Your task to perform on an android device: delete the emails in spam in the gmail app Image 0: 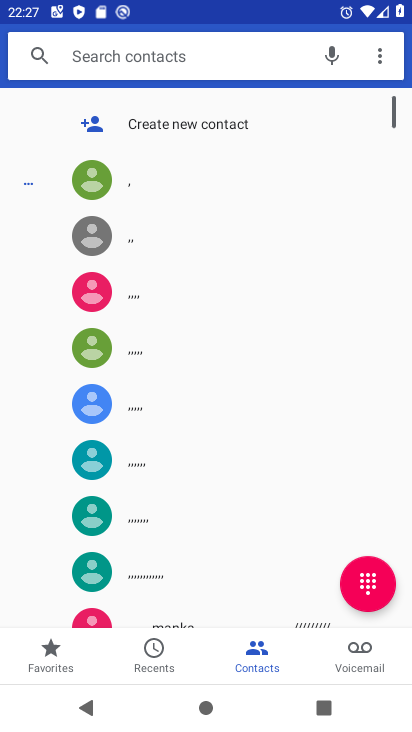
Step 0: press home button
Your task to perform on an android device: delete the emails in spam in the gmail app Image 1: 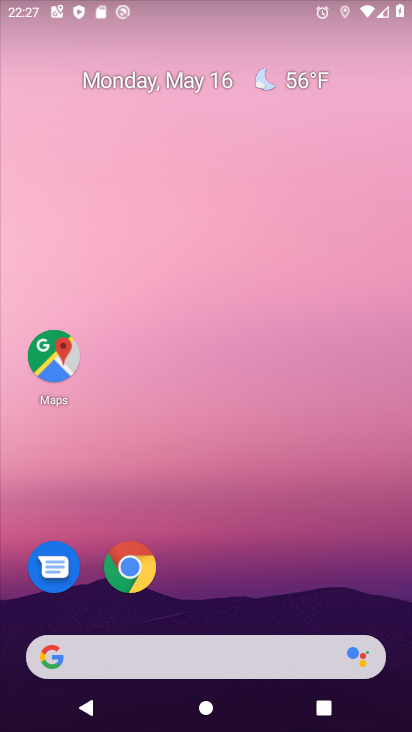
Step 1: drag from (259, 577) to (272, 195)
Your task to perform on an android device: delete the emails in spam in the gmail app Image 2: 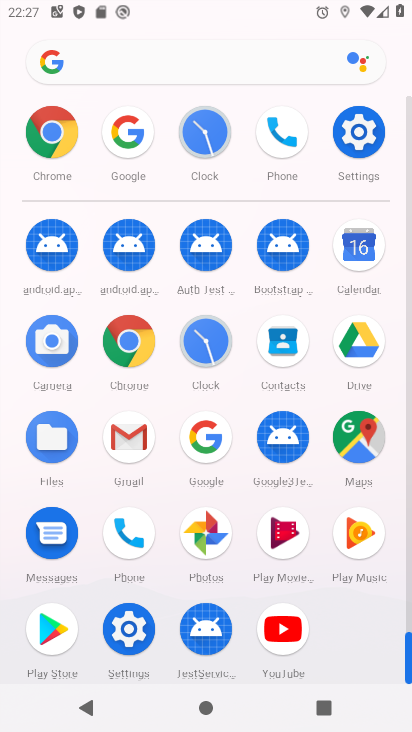
Step 2: click (121, 433)
Your task to perform on an android device: delete the emails in spam in the gmail app Image 3: 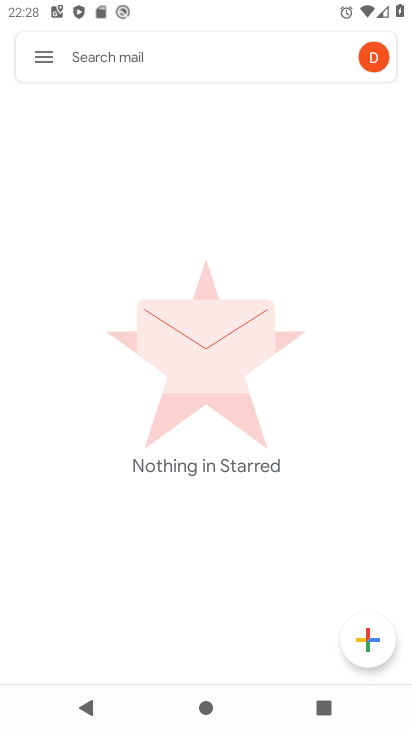
Step 3: click (28, 47)
Your task to perform on an android device: delete the emails in spam in the gmail app Image 4: 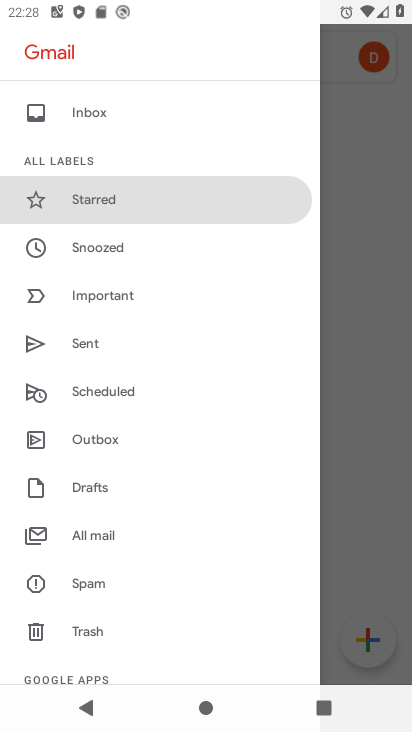
Step 4: click (136, 588)
Your task to perform on an android device: delete the emails in spam in the gmail app Image 5: 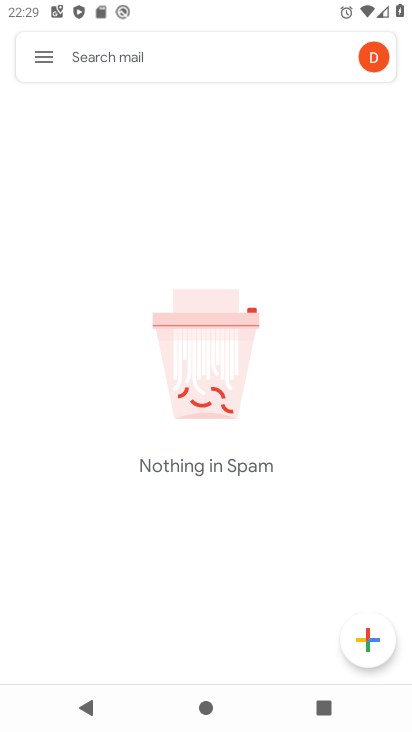
Step 5: task complete